Your task to perform on an android device: change the clock display to analog Image 0: 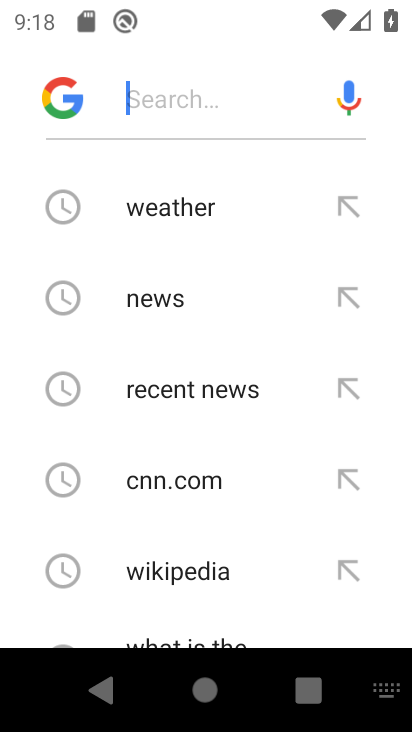
Step 0: press home button
Your task to perform on an android device: change the clock display to analog Image 1: 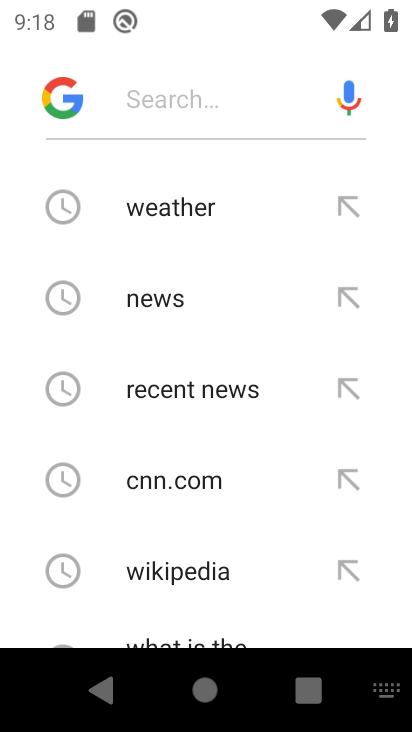
Step 1: press home button
Your task to perform on an android device: change the clock display to analog Image 2: 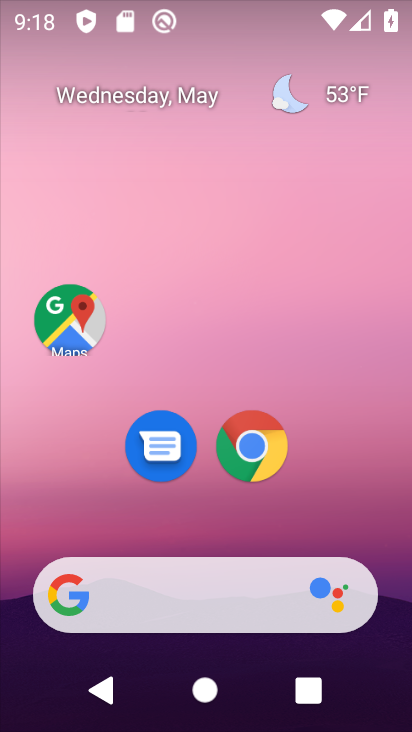
Step 2: drag from (339, 494) to (275, 191)
Your task to perform on an android device: change the clock display to analog Image 3: 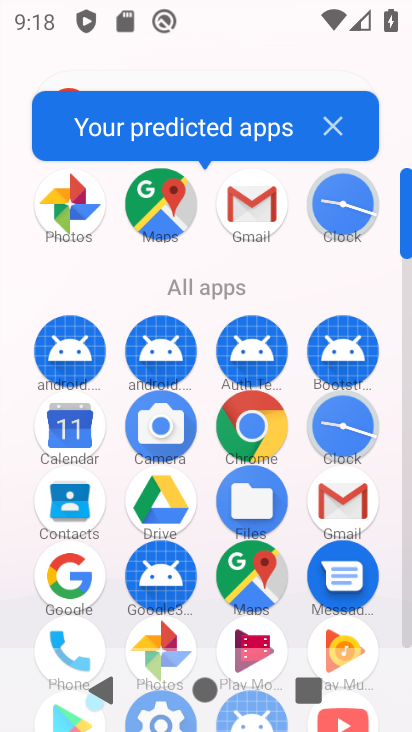
Step 3: click (353, 223)
Your task to perform on an android device: change the clock display to analog Image 4: 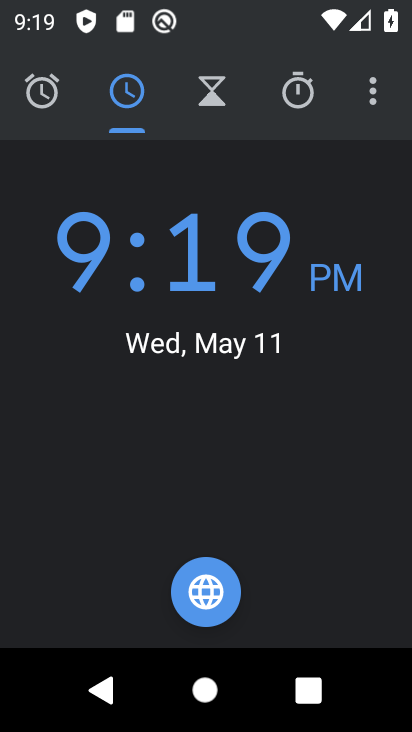
Step 4: click (370, 86)
Your task to perform on an android device: change the clock display to analog Image 5: 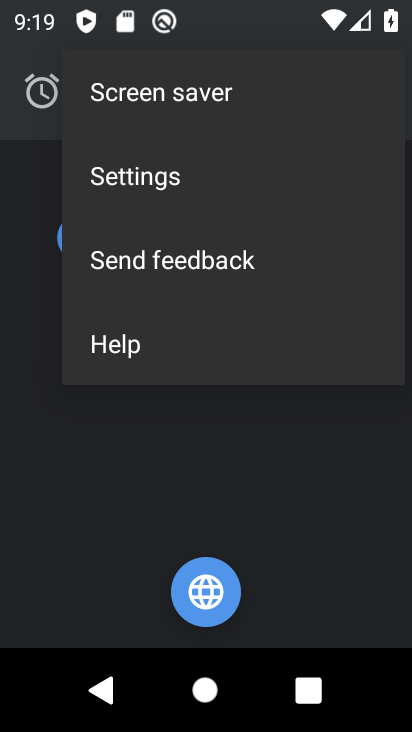
Step 5: click (191, 191)
Your task to perform on an android device: change the clock display to analog Image 6: 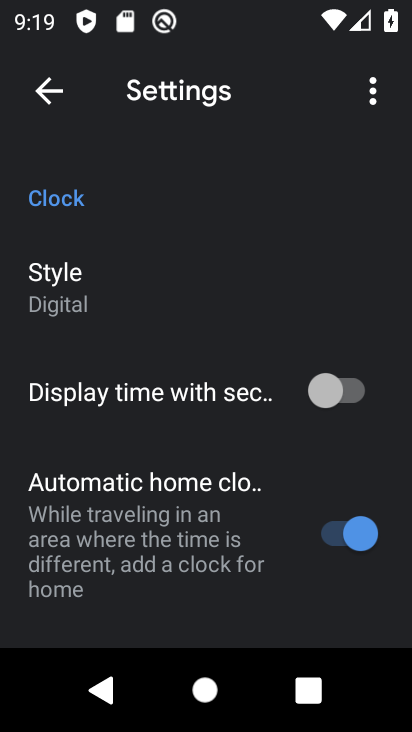
Step 6: click (208, 269)
Your task to perform on an android device: change the clock display to analog Image 7: 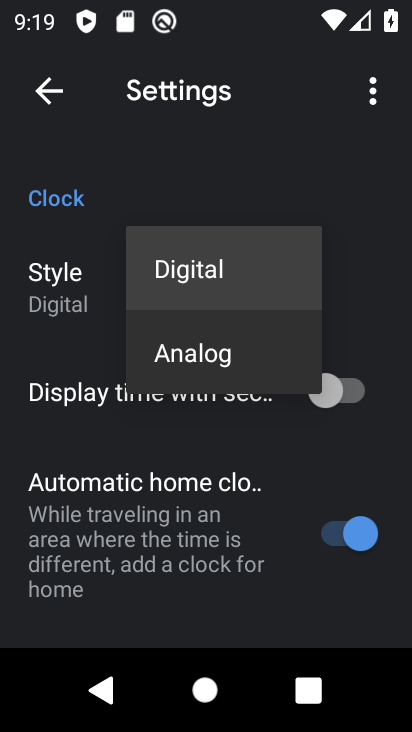
Step 7: click (223, 343)
Your task to perform on an android device: change the clock display to analog Image 8: 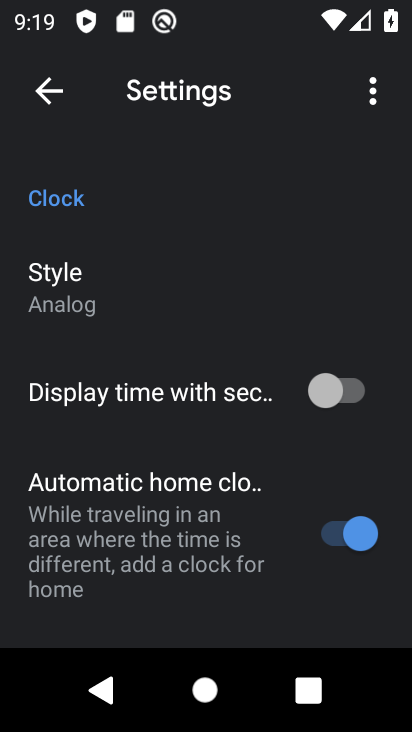
Step 8: task complete